Your task to perform on an android device: turn on the 24-hour format for clock Image 0: 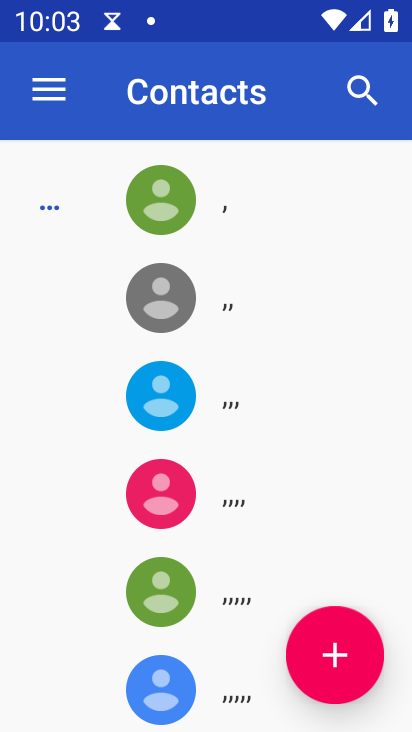
Step 0: press home button
Your task to perform on an android device: turn on the 24-hour format for clock Image 1: 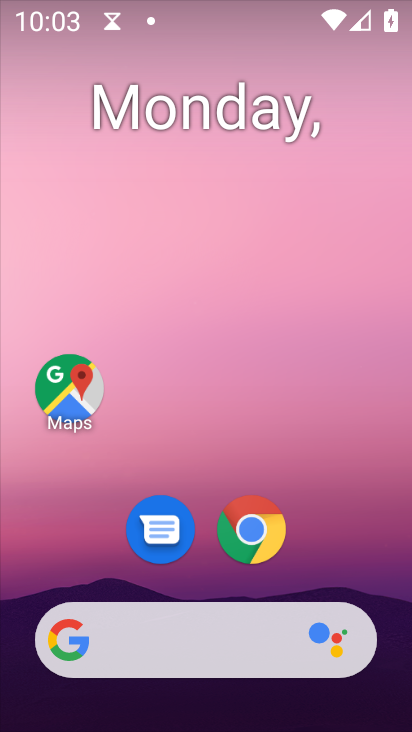
Step 1: drag from (309, 574) to (234, 155)
Your task to perform on an android device: turn on the 24-hour format for clock Image 2: 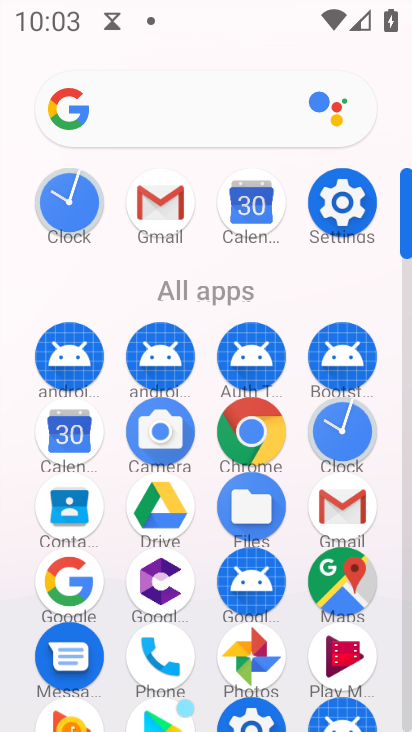
Step 2: click (70, 200)
Your task to perform on an android device: turn on the 24-hour format for clock Image 3: 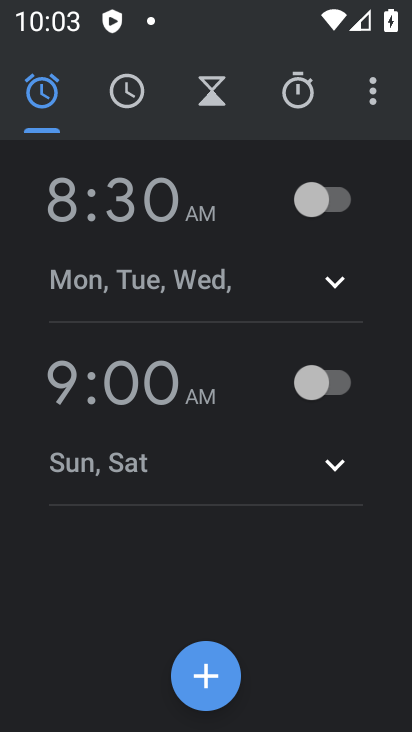
Step 3: click (374, 93)
Your task to perform on an android device: turn on the 24-hour format for clock Image 4: 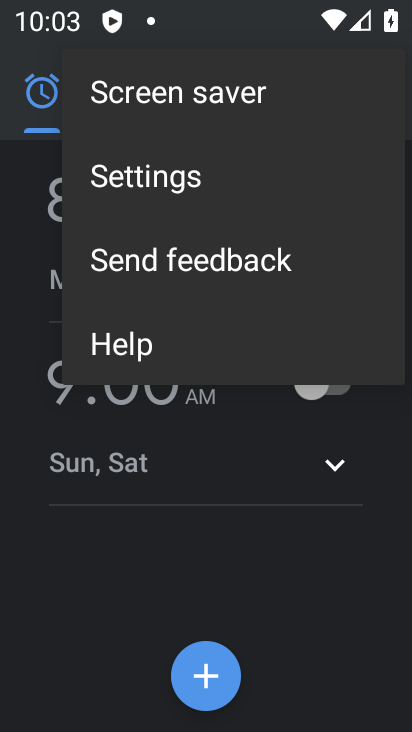
Step 4: click (200, 193)
Your task to perform on an android device: turn on the 24-hour format for clock Image 5: 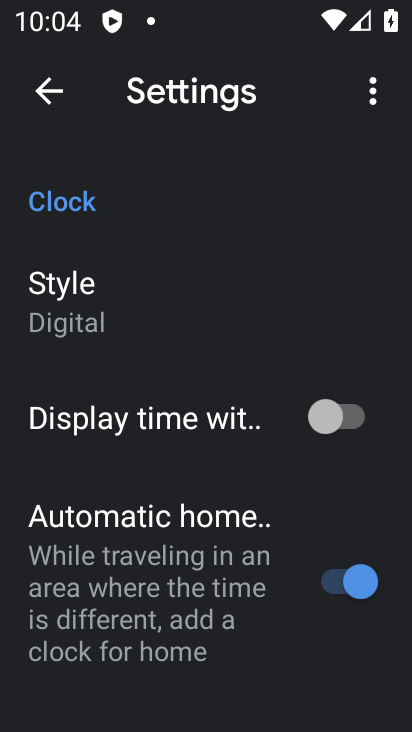
Step 5: drag from (131, 347) to (184, 264)
Your task to perform on an android device: turn on the 24-hour format for clock Image 6: 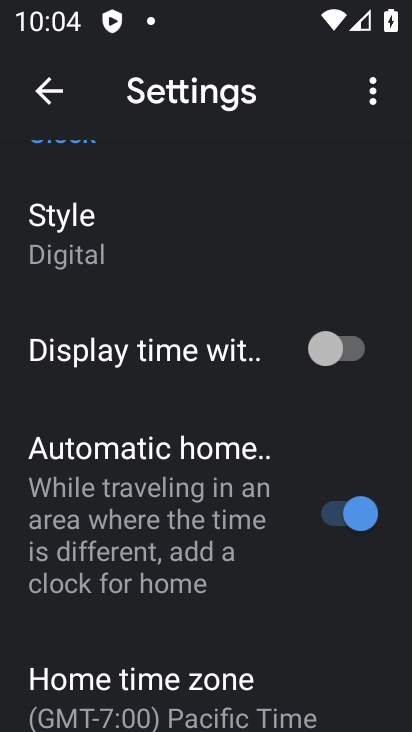
Step 6: drag from (157, 306) to (224, 209)
Your task to perform on an android device: turn on the 24-hour format for clock Image 7: 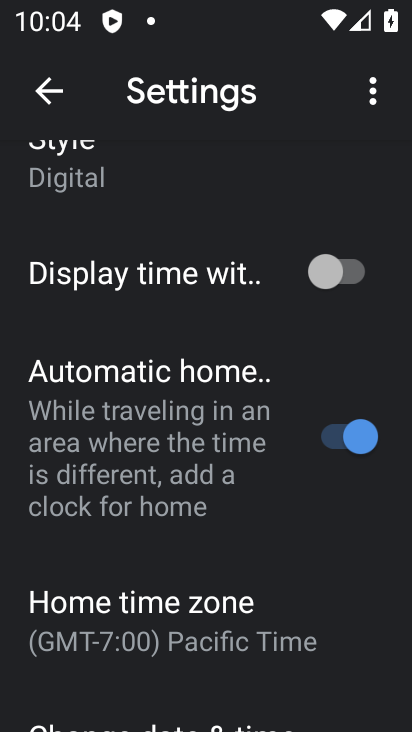
Step 7: drag from (133, 330) to (211, 236)
Your task to perform on an android device: turn on the 24-hour format for clock Image 8: 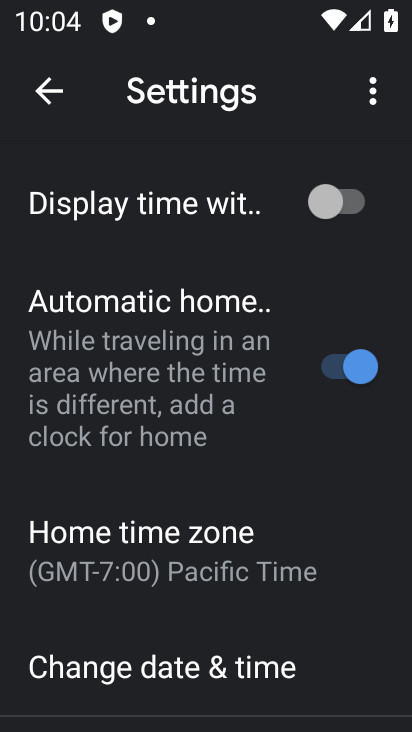
Step 8: drag from (137, 479) to (231, 374)
Your task to perform on an android device: turn on the 24-hour format for clock Image 9: 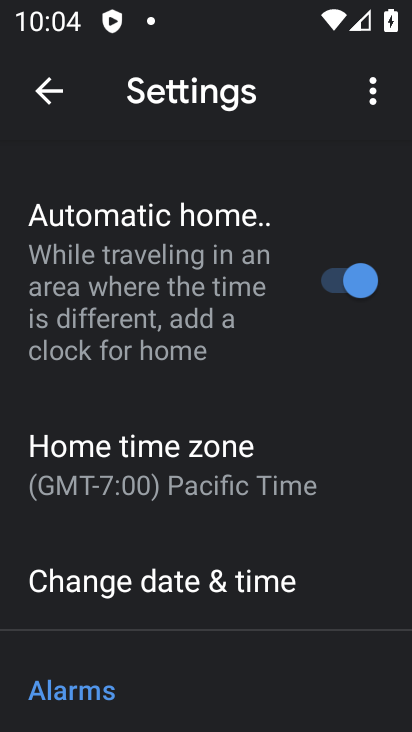
Step 9: drag from (130, 515) to (245, 383)
Your task to perform on an android device: turn on the 24-hour format for clock Image 10: 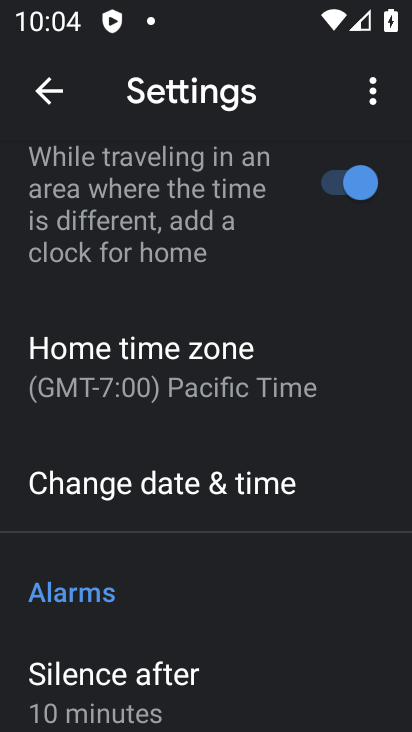
Step 10: click (184, 479)
Your task to perform on an android device: turn on the 24-hour format for clock Image 11: 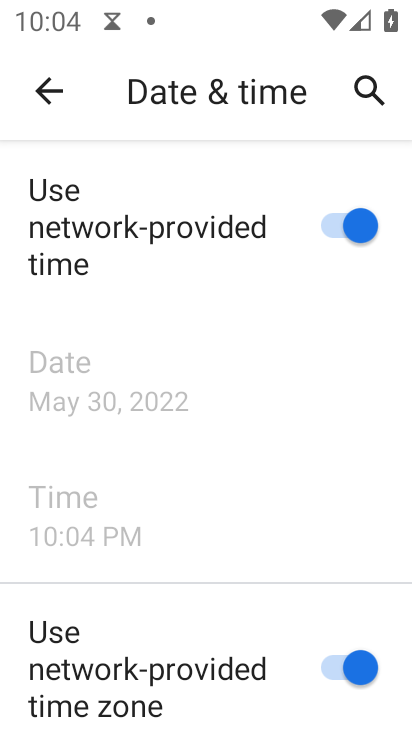
Step 11: drag from (147, 621) to (195, 512)
Your task to perform on an android device: turn on the 24-hour format for clock Image 12: 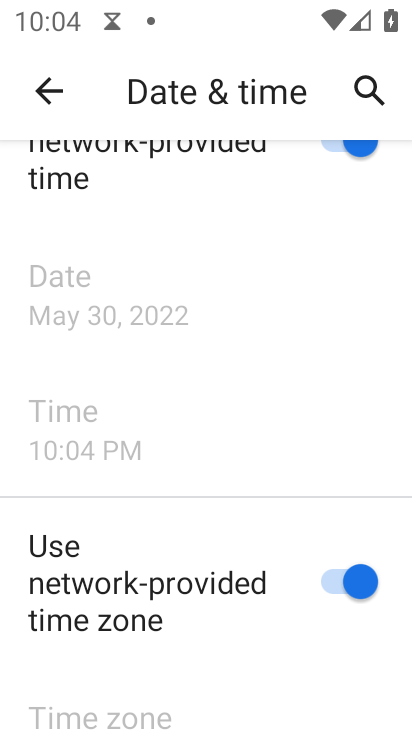
Step 12: drag from (201, 659) to (272, 524)
Your task to perform on an android device: turn on the 24-hour format for clock Image 13: 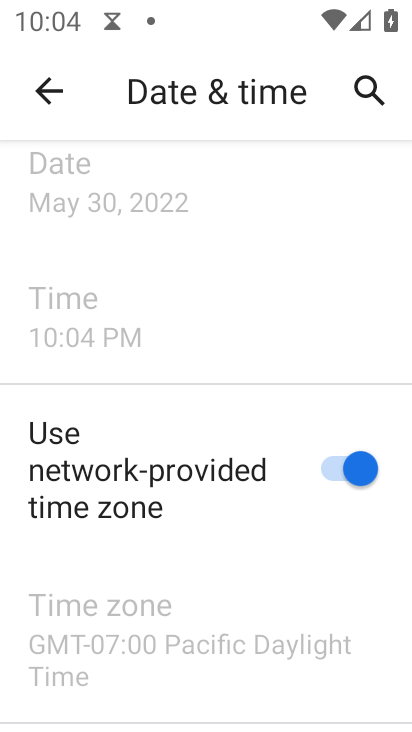
Step 13: drag from (187, 700) to (266, 538)
Your task to perform on an android device: turn on the 24-hour format for clock Image 14: 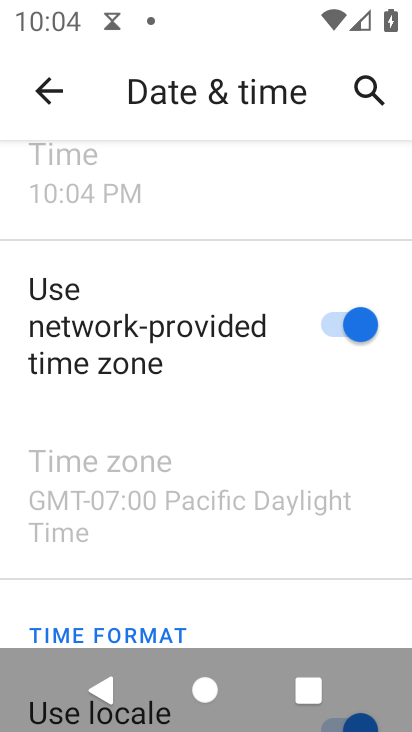
Step 14: drag from (236, 614) to (333, 391)
Your task to perform on an android device: turn on the 24-hour format for clock Image 15: 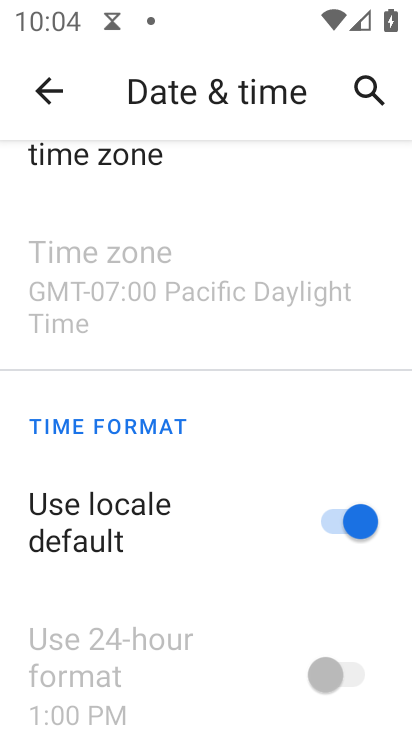
Step 15: drag from (254, 535) to (333, 403)
Your task to perform on an android device: turn on the 24-hour format for clock Image 16: 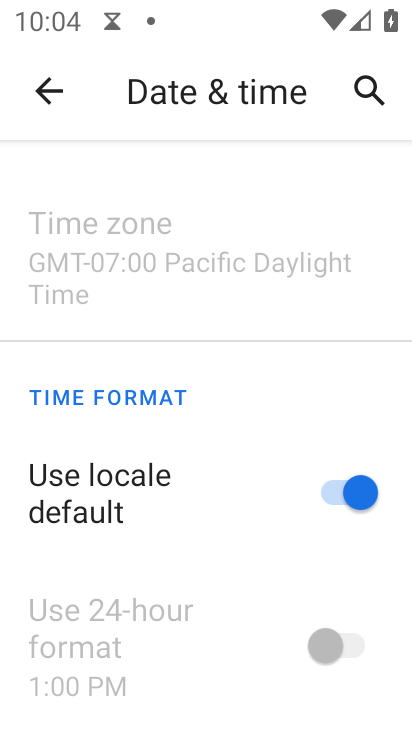
Step 16: click (361, 488)
Your task to perform on an android device: turn on the 24-hour format for clock Image 17: 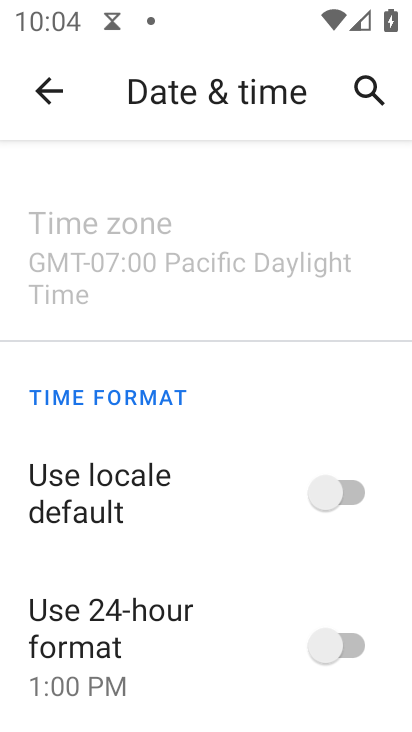
Step 17: click (331, 657)
Your task to perform on an android device: turn on the 24-hour format for clock Image 18: 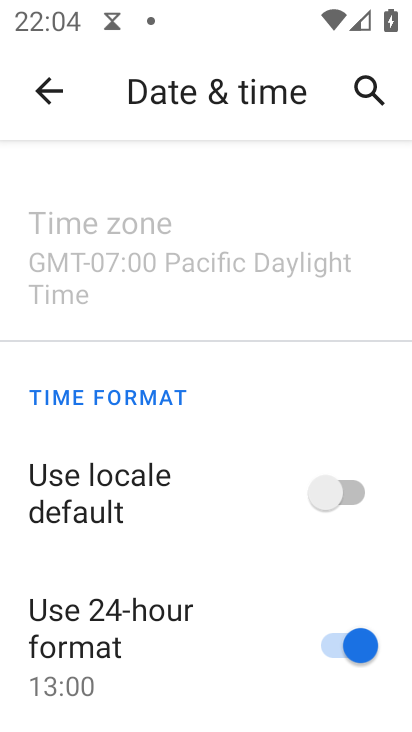
Step 18: task complete